Your task to perform on an android device: Open the stopwatch Image 0: 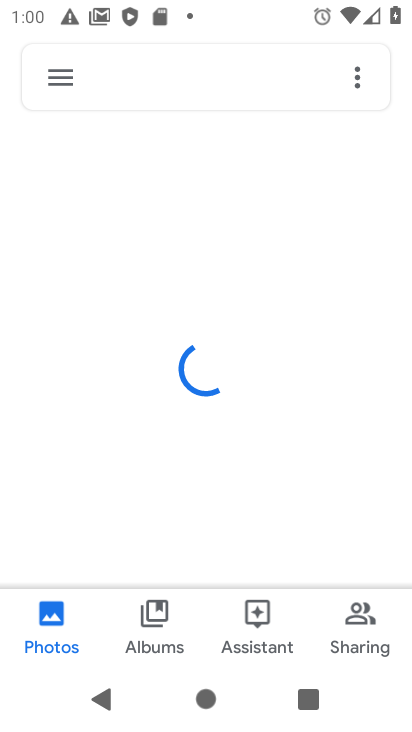
Step 0: press home button
Your task to perform on an android device: Open the stopwatch Image 1: 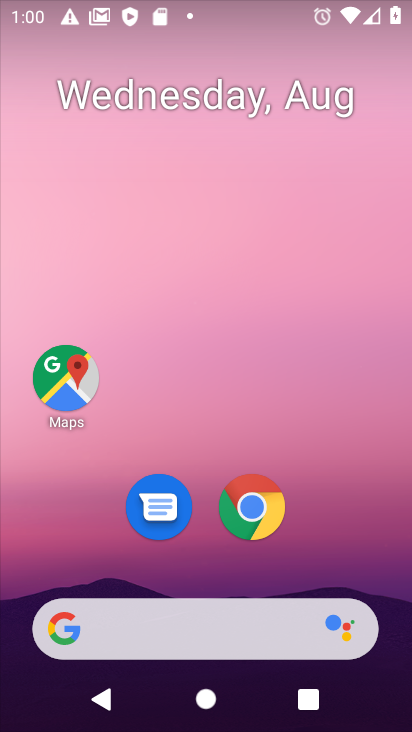
Step 1: drag from (245, 577) to (295, 0)
Your task to perform on an android device: Open the stopwatch Image 2: 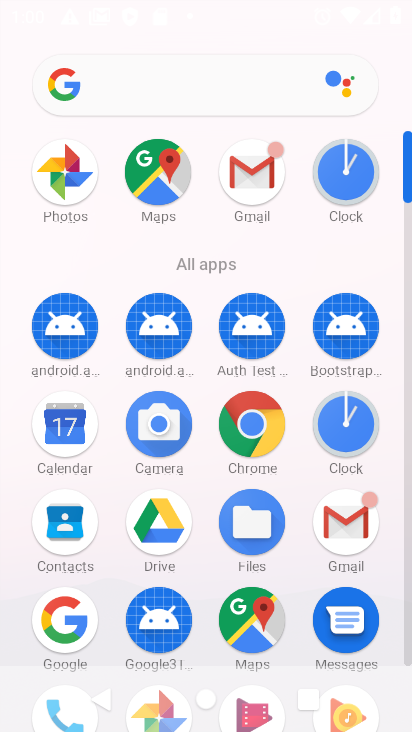
Step 2: click (348, 442)
Your task to perform on an android device: Open the stopwatch Image 3: 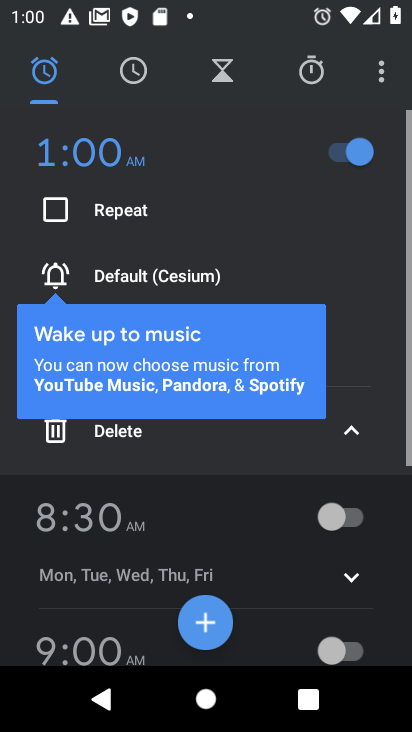
Step 3: click (303, 81)
Your task to perform on an android device: Open the stopwatch Image 4: 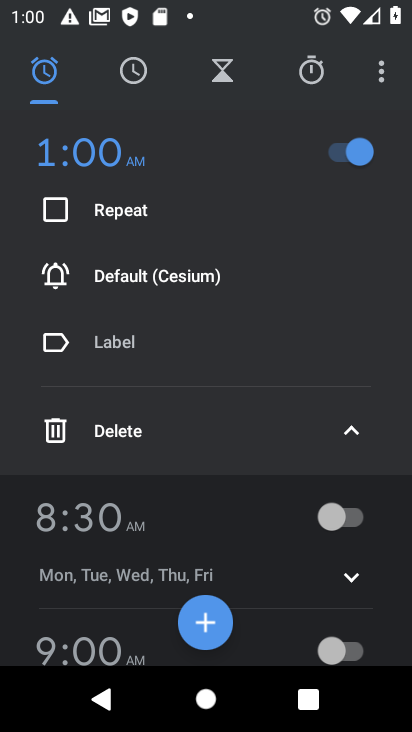
Step 4: click (321, 69)
Your task to perform on an android device: Open the stopwatch Image 5: 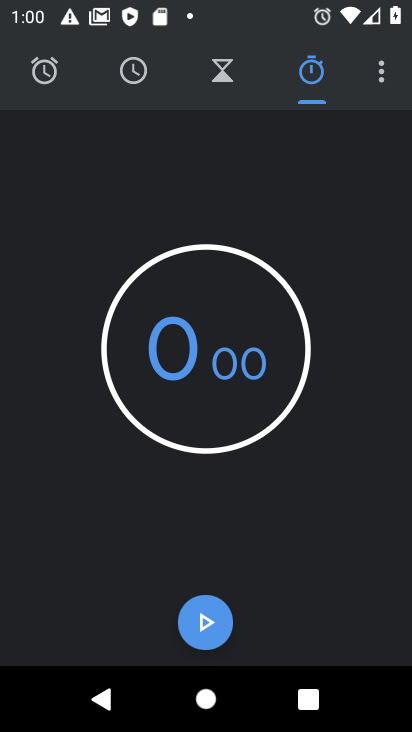
Step 5: task complete